Your task to perform on an android device: Open the Play Movies app and select the watchlist tab. Image 0: 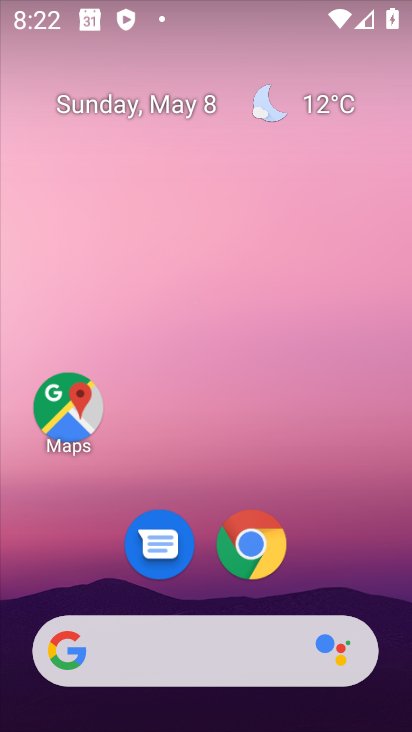
Step 0: drag from (350, 539) to (211, 79)
Your task to perform on an android device: Open the Play Movies app and select the watchlist tab. Image 1: 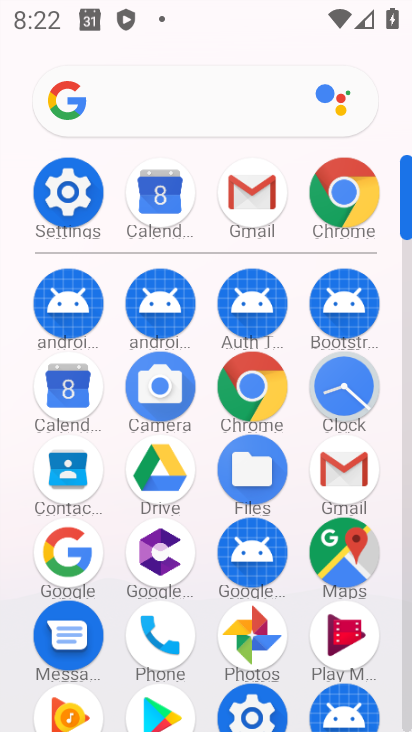
Step 1: click (345, 633)
Your task to perform on an android device: Open the Play Movies app and select the watchlist tab. Image 2: 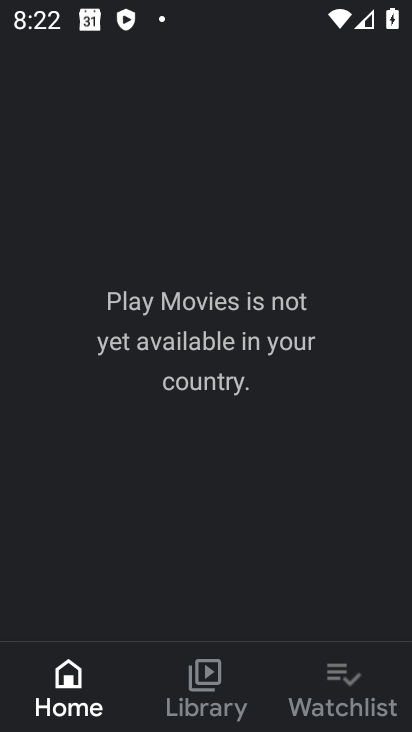
Step 2: click (329, 668)
Your task to perform on an android device: Open the Play Movies app and select the watchlist tab. Image 3: 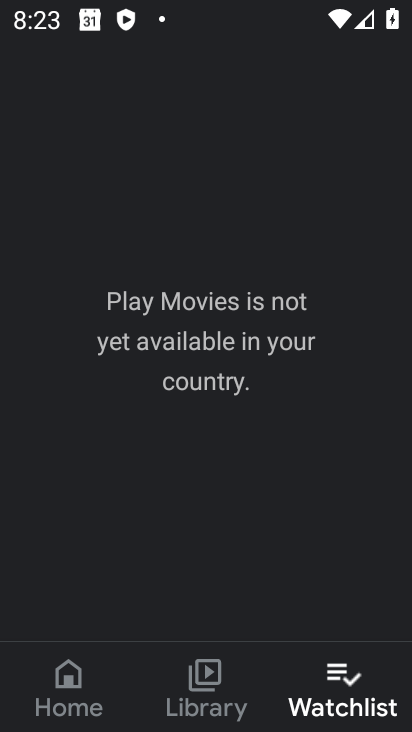
Step 3: task complete